Your task to perform on an android device: see tabs open on other devices in the chrome app Image 0: 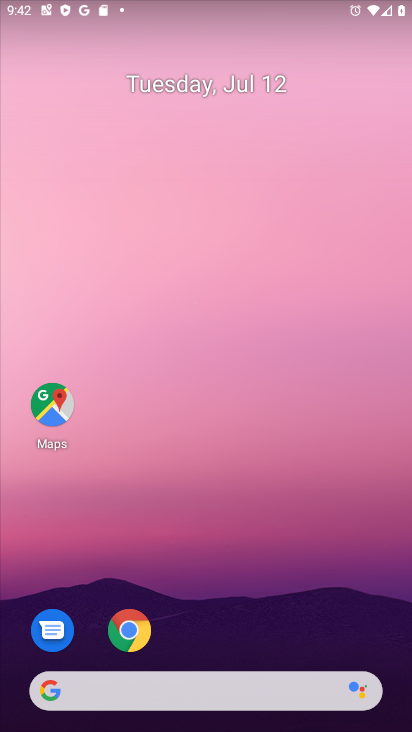
Step 0: drag from (227, 603) to (227, 154)
Your task to perform on an android device: see tabs open on other devices in the chrome app Image 1: 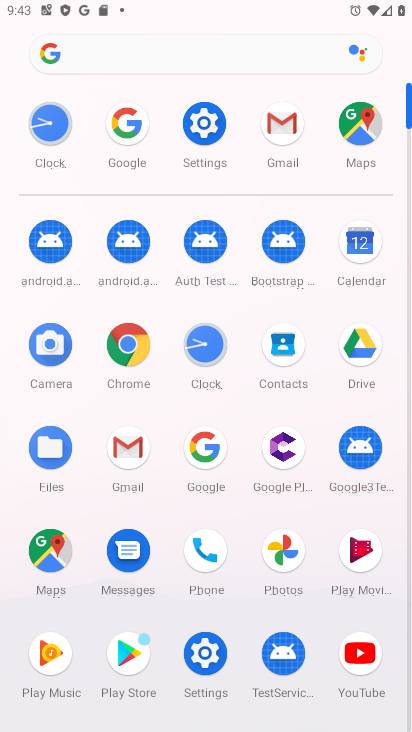
Step 1: click (133, 346)
Your task to perform on an android device: see tabs open on other devices in the chrome app Image 2: 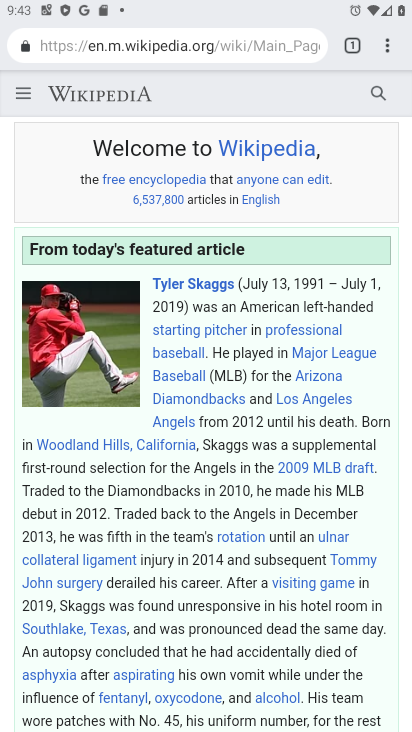
Step 2: click (351, 41)
Your task to perform on an android device: see tabs open on other devices in the chrome app Image 3: 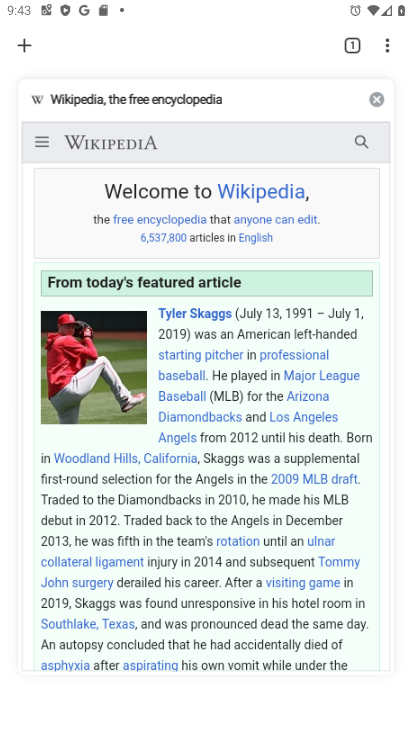
Step 3: task complete